Your task to perform on an android device: toggle improve location accuracy Image 0: 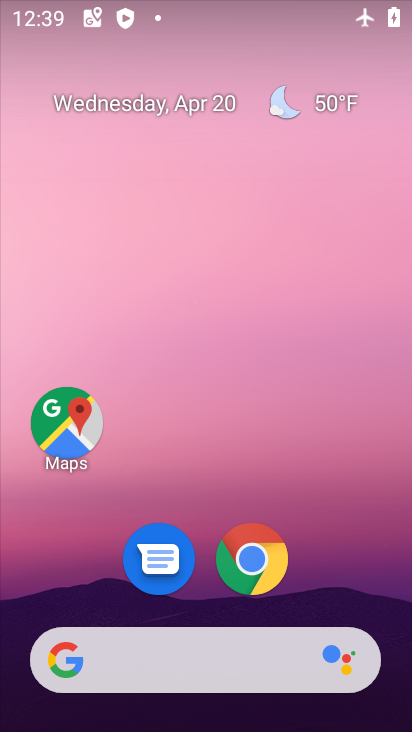
Step 0: drag from (338, 564) to (330, 123)
Your task to perform on an android device: toggle improve location accuracy Image 1: 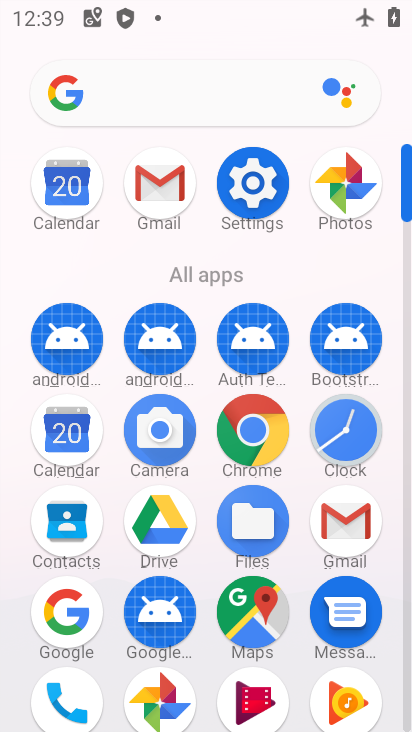
Step 1: click (255, 174)
Your task to perform on an android device: toggle improve location accuracy Image 2: 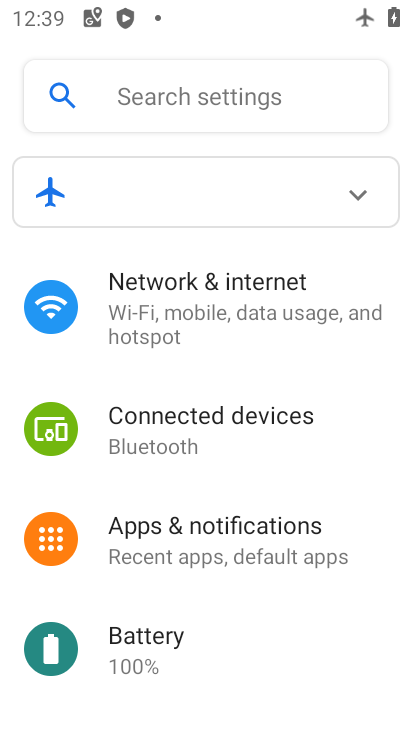
Step 2: drag from (220, 580) to (243, 177)
Your task to perform on an android device: toggle improve location accuracy Image 3: 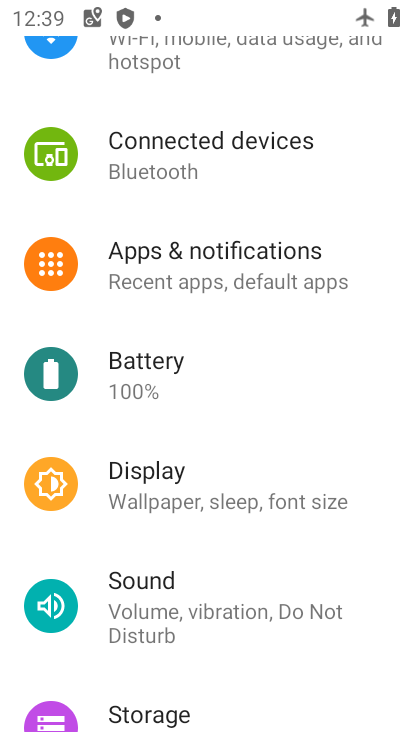
Step 3: drag from (311, 685) to (326, 153)
Your task to perform on an android device: toggle improve location accuracy Image 4: 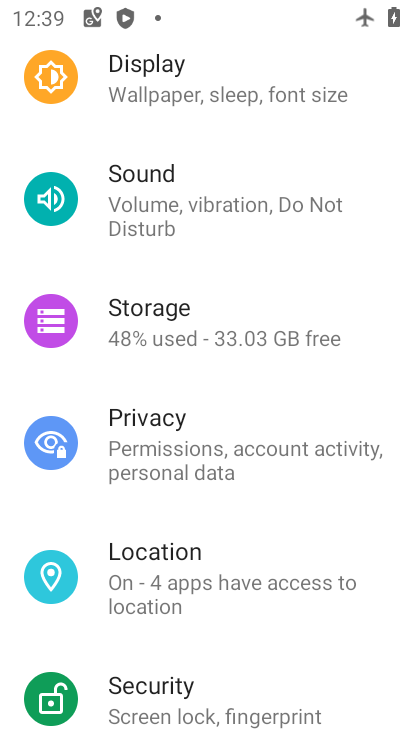
Step 4: click (178, 572)
Your task to perform on an android device: toggle improve location accuracy Image 5: 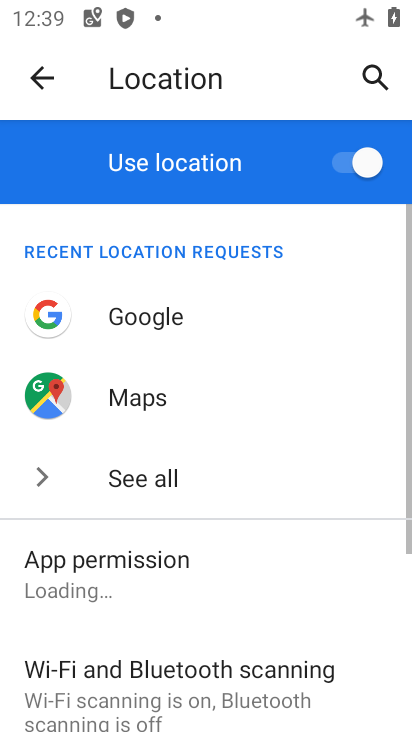
Step 5: drag from (222, 632) to (246, 263)
Your task to perform on an android device: toggle improve location accuracy Image 6: 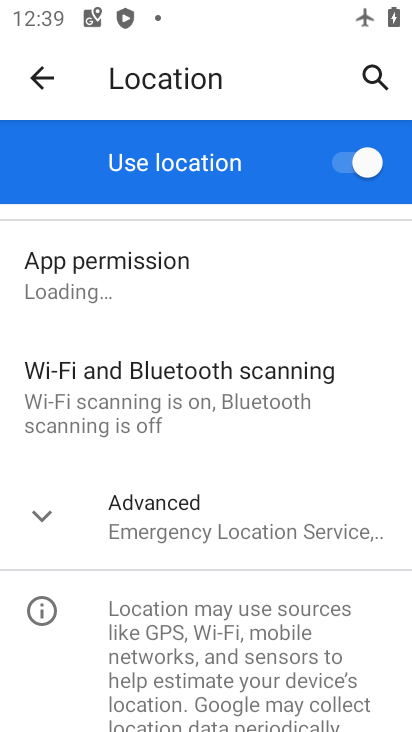
Step 6: click (195, 527)
Your task to perform on an android device: toggle improve location accuracy Image 7: 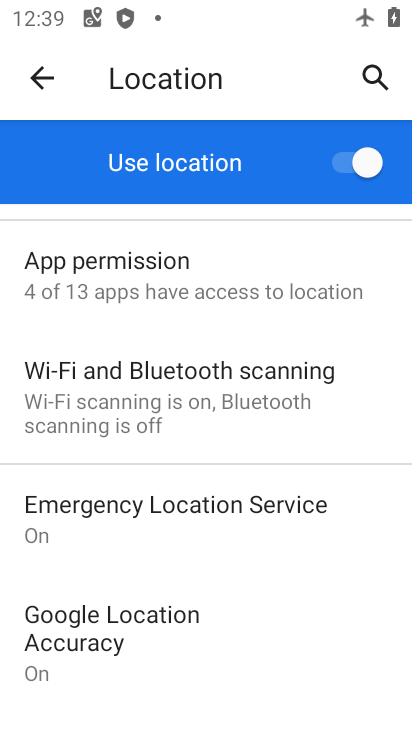
Step 7: click (97, 636)
Your task to perform on an android device: toggle improve location accuracy Image 8: 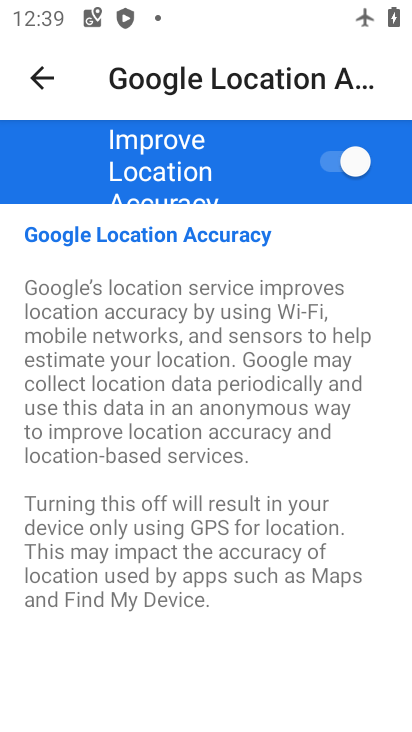
Step 8: click (359, 161)
Your task to perform on an android device: toggle improve location accuracy Image 9: 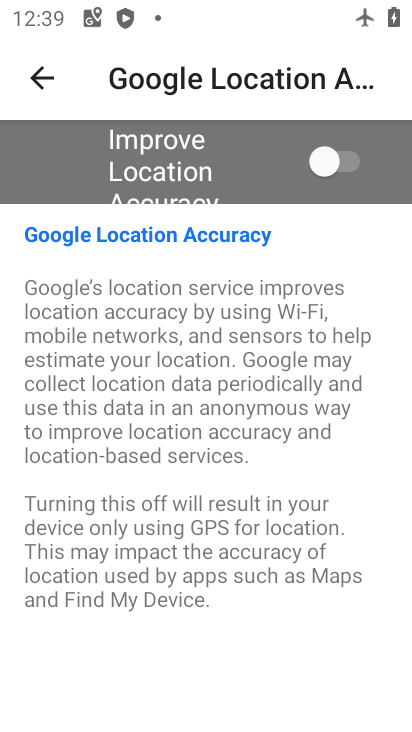
Step 9: task complete